Your task to perform on an android device: Open Maps and search for coffee Image 0: 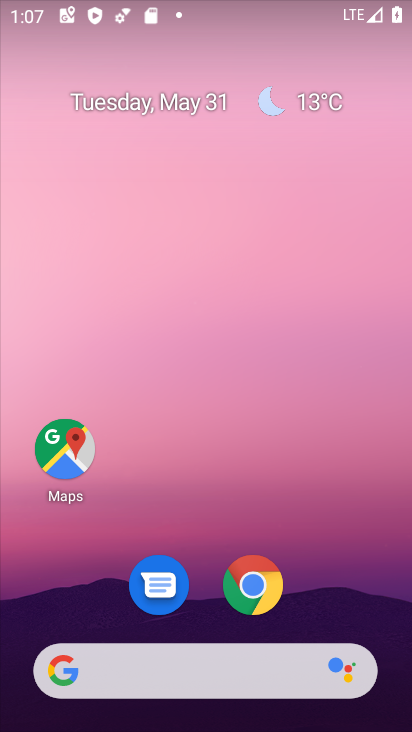
Step 0: click (55, 441)
Your task to perform on an android device: Open Maps and search for coffee Image 1: 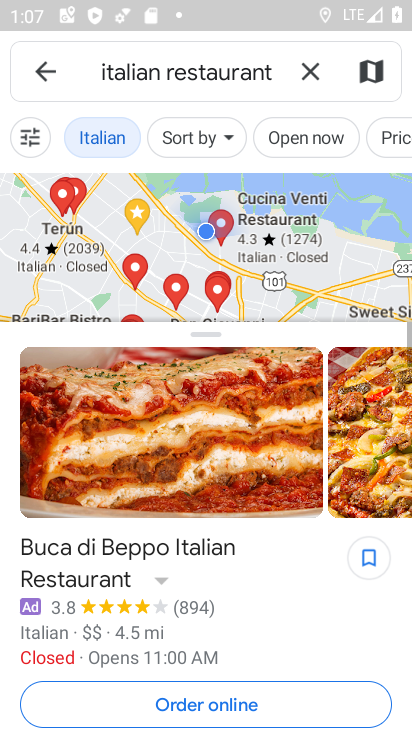
Step 1: click (311, 68)
Your task to perform on an android device: Open Maps and search for coffee Image 2: 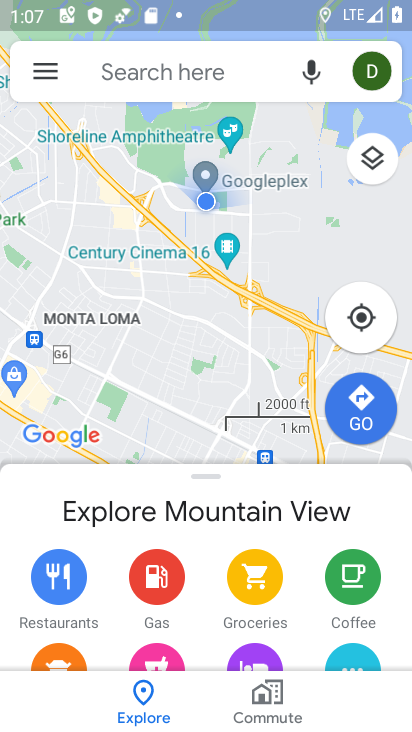
Step 2: click (211, 75)
Your task to perform on an android device: Open Maps and search for coffee Image 3: 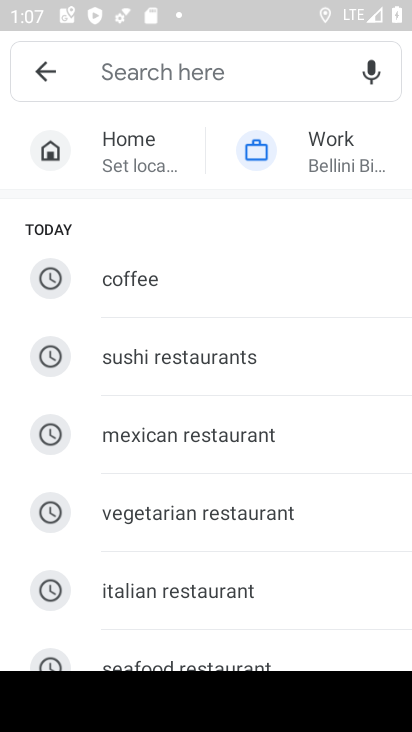
Step 3: click (152, 269)
Your task to perform on an android device: Open Maps and search for coffee Image 4: 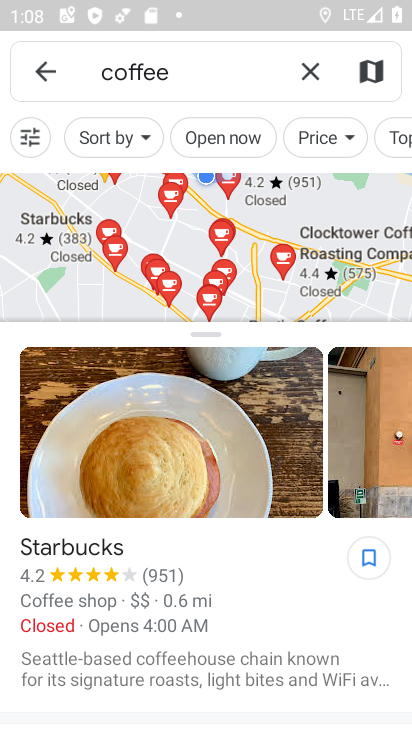
Step 4: task complete